Your task to perform on an android device: View the shopping cart on bestbuy. Add "logitech g pro" to the cart on bestbuy, then select checkout. Image 0: 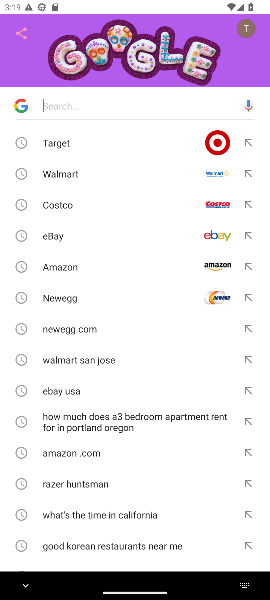
Step 0: press home button
Your task to perform on an android device: View the shopping cart on bestbuy. Add "logitech g pro" to the cart on bestbuy, then select checkout. Image 1: 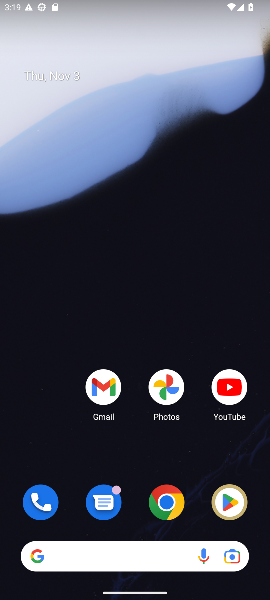
Step 1: drag from (153, 516) to (196, 125)
Your task to perform on an android device: View the shopping cart on bestbuy. Add "logitech g pro" to the cart on bestbuy, then select checkout. Image 2: 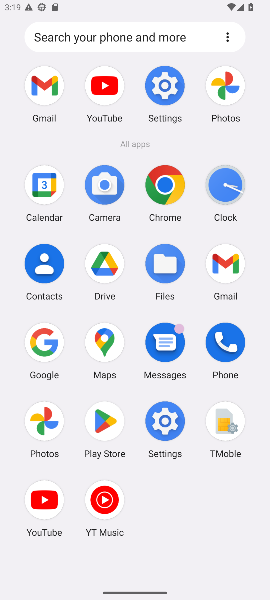
Step 2: click (37, 342)
Your task to perform on an android device: View the shopping cart on bestbuy. Add "logitech g pro" to the cart on bestbuy, then select checkout. Image 3: 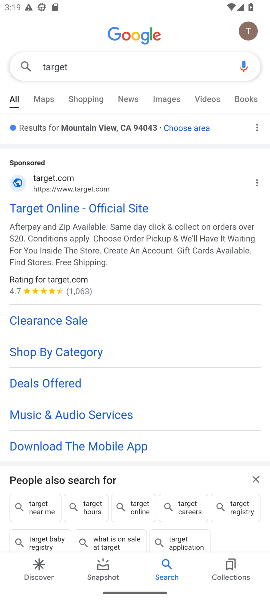
Step 3: click (207, 62)
Your task to perform on an android device: View the shopping cart on bestbuy. Add "logitech g pro" to the cart on bestbuy, then select checkout. Image 4: 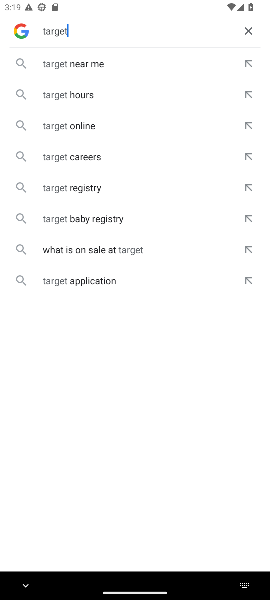
Step 4: click (256, 23)
Your task to perform on an android device: View the shopping cart on bestbuy. Add "logitech g pro" to the cart on bestbuy, then select checkout. Image 5: 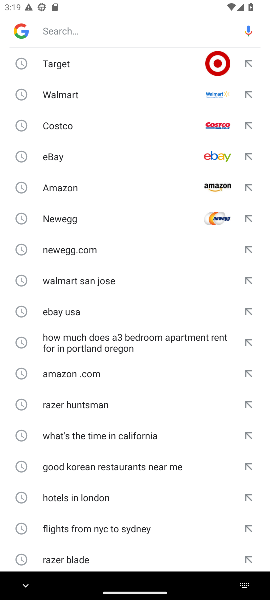
Step 5: type "bestbuy"
Your task to perform on an android device: View the shopping cart on bestbuy. Add "logitech g pro" to the cart on bestbuy, then select checkout. Image 6: 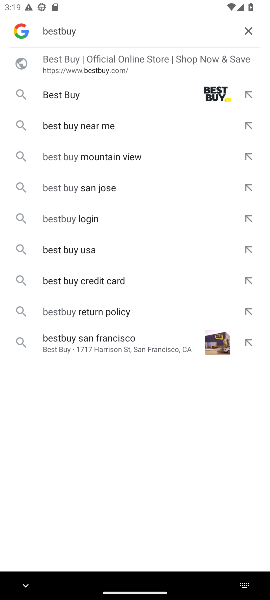
Step 6: click (142, 71)
Your task to perform on an android device: View the shopping cart on bestbuy. Add "logitech g pro" to the cart on bestbuy, then select checkout. Image 7: 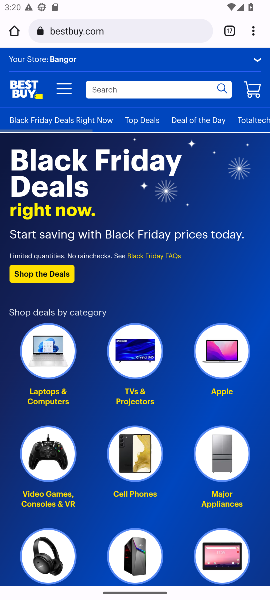
Step 7: click (134, 93)
Your task to perform on an android device: View the shopping cart on bestbuy. Add "logitech g pro" to the cart on bestbuy, then select checkout. Image 8: 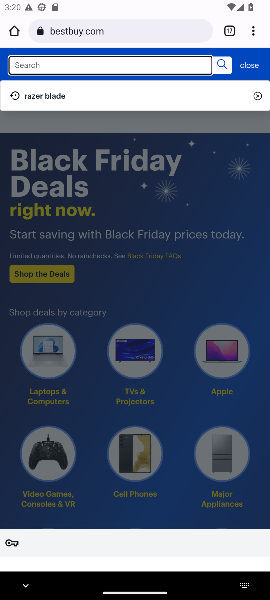
Step 8: type "logitech g pro"
Your task to perform on an android device: View the shopping cart on bestbuy. Add "logitech g pro" to the cart on bestbuy, then select checkout. Image 9: 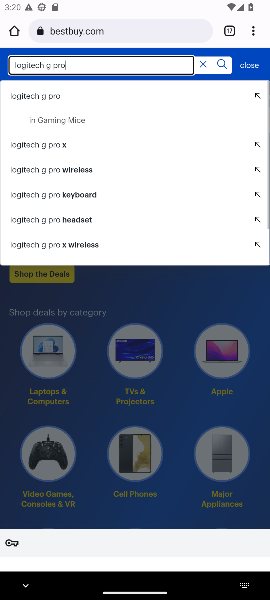
Step 9: click (113, 90)
Your task to perform on an android device: View the shopping cart on bestbuy. Add "logitech g pro" to the cart on bestbuy, then select checkout. Image 10: 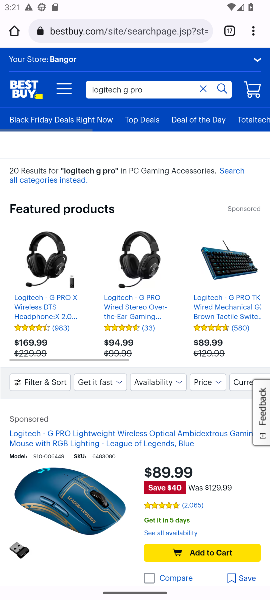
Step 10: click (112, 438)
Your task to perform on an android device: View the shopping cart on bestbuy. Add "logitech g pro" to the cart on bestbuy, then select checkout. Image 11: 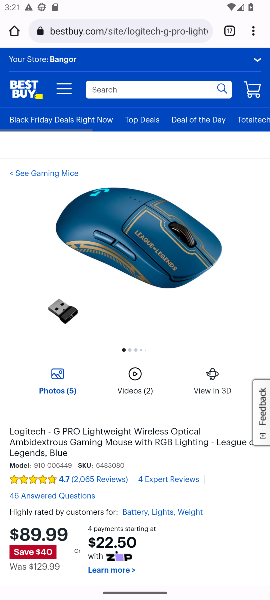
Step 11: drag from (205, 492) to (181, 301)
Your task to perform on an android device: View the shopping cart on bestbuy. Add "logitech g pro" to the cart on bestbuy, then select checkout. Image 12: 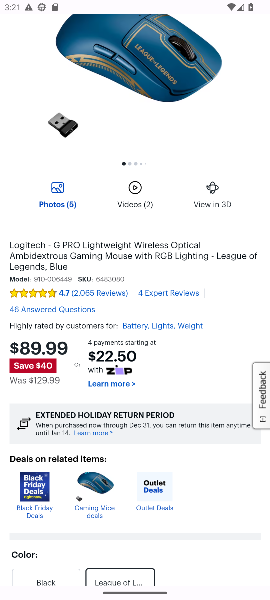
Step 12: drag from (209, 469) to (249, 158)
Your task to perform on an android device: View the shopping cart on bestbuy. Add "logitech g pro" to the cart on bestbuy, then select checkout. Image 13: 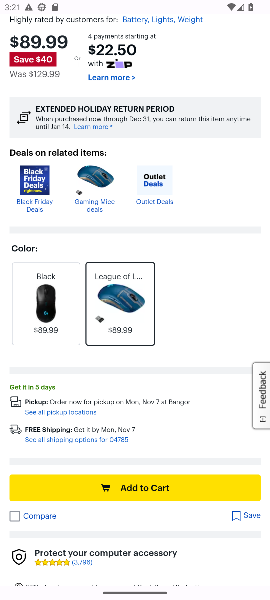
Step 13: click (200, 489)
Your task to perform on an android device: View the shopping cart on bestbuy. Add "logitech g pro" to the cart on bestbuy, then select checkout. Image 14: 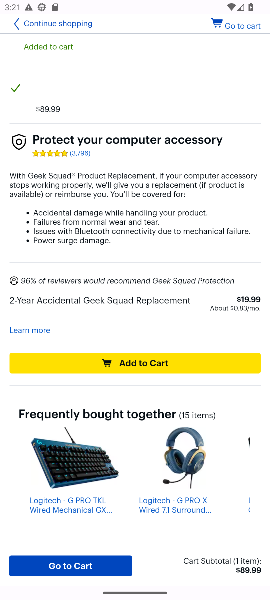
Step 14: click (68, 566)
Your task to perform on an android device: View the shopping cart on bestbuy. Add "logitech g pro" to the cart on bestbuy, then select checkout. Image 15: 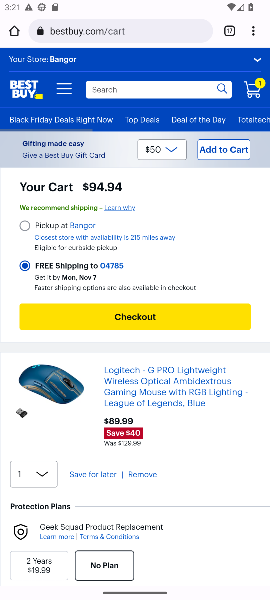
Step 15: click (117, 321)
Your task to perform on an android device: View the shopping cart on bestbuy. Add "logitech g pro" to the cart on bestbuy, then select checkout. Image 16: 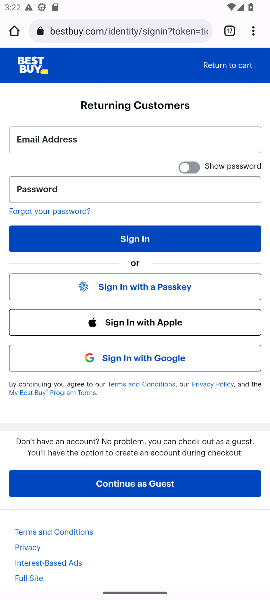
Step 16: task complete